Your task to perform on an android device: empty trash in google photos Image 0: 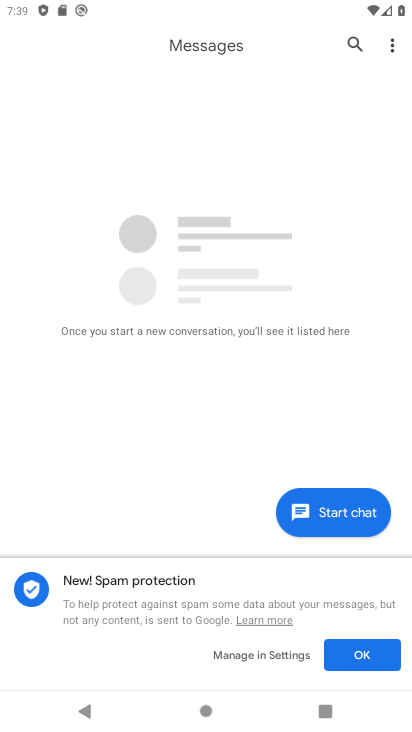
Step 0: press home button
Your task to perform on an android device: empty trash in google photos Image 1: 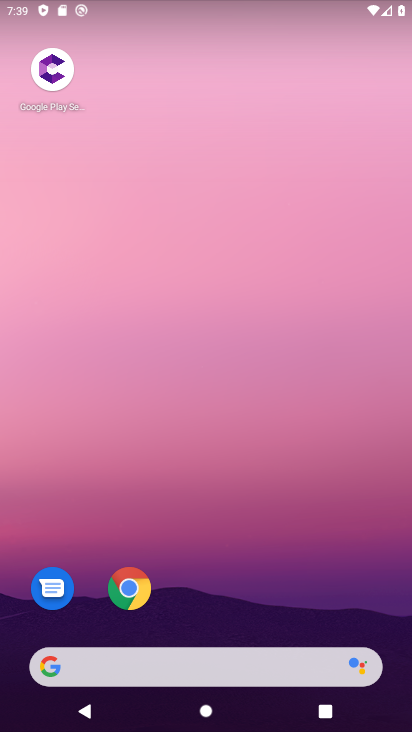
Step 1: drag from (41, 699) to (281, 59)
Your task to perform on an android device: empty trash in google photos Image 2: 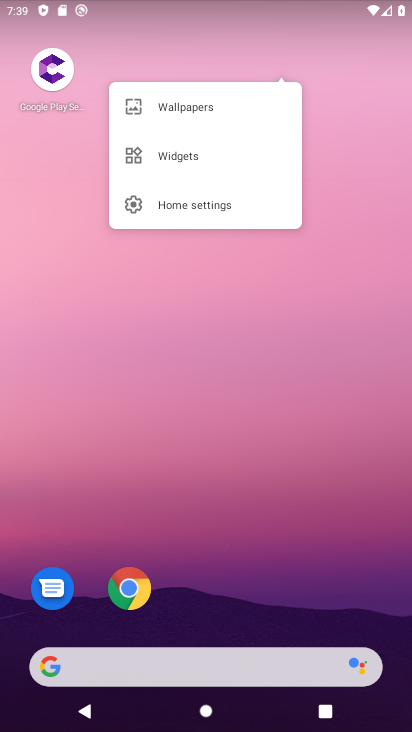
Step 2: drag from (53, 714) to (360, 132)
Your task to perform on an android device: empty trash in google photos Image 3: 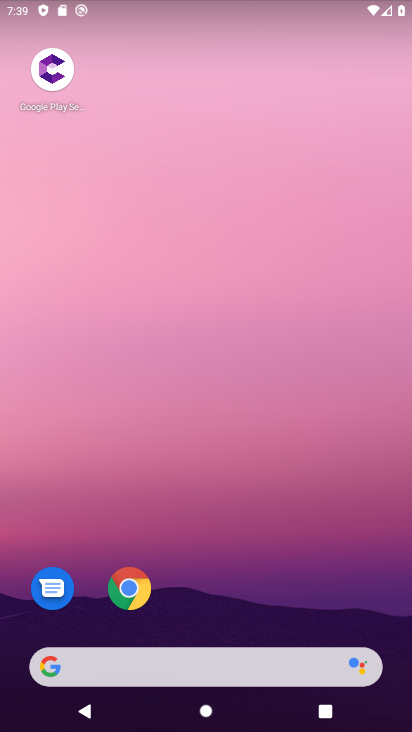
Step 3: drag from (56, 584) to (302, 16)
Your task to perform on an android device: empty trash in google photos Image 4: 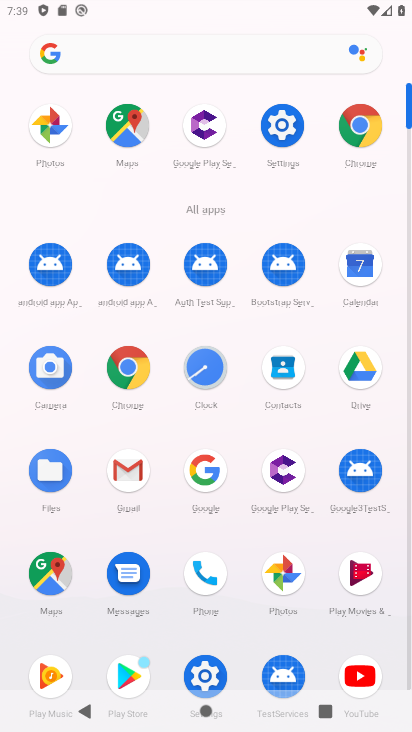
Step 4: click (282, 561)
Your task to perform on an android device: empty trash in google photos Image 5: 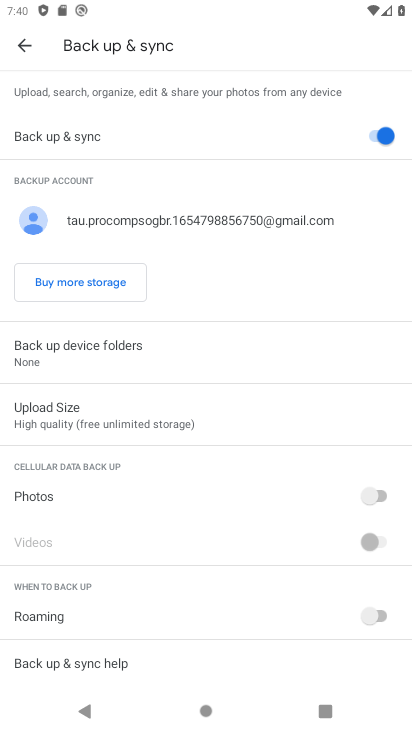
Step 5: click (16, 40)
Your task to perform on an android device: empty trash in google photos Image 6: 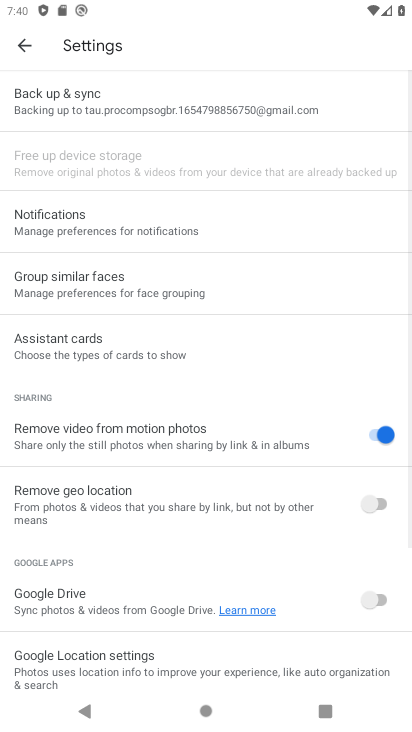
Step 6: click (16, 39)
Your task to perform on an android device: empty trash in google photos Image 7: 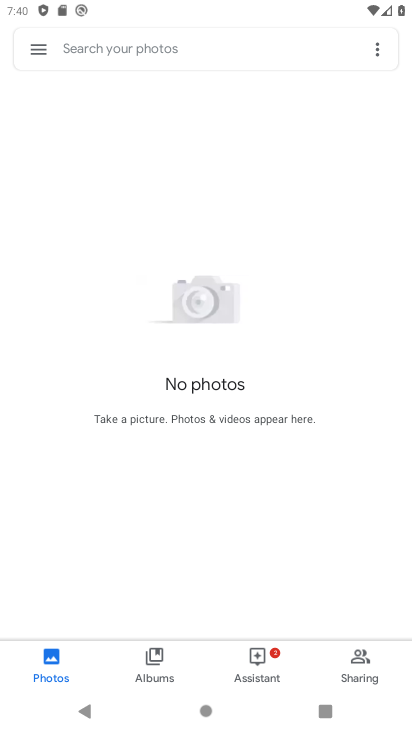
Step 7: click (35, 45)
Your task to perform on an android device: empty trash in google photos Image 8: 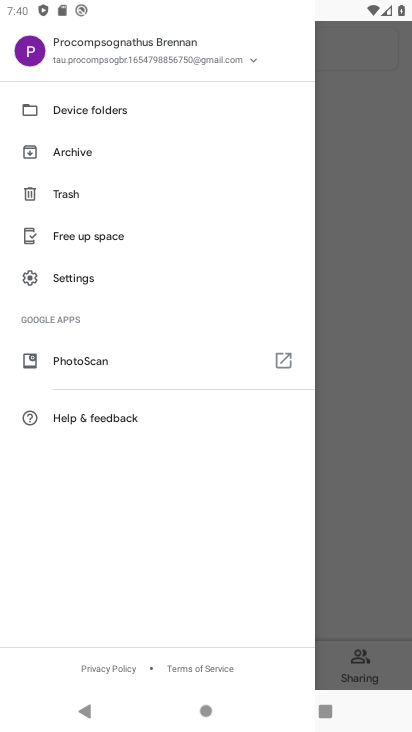
Step 8: click (69, 189)
Your task to perform on an android device: empty trash in google photos Image 9: 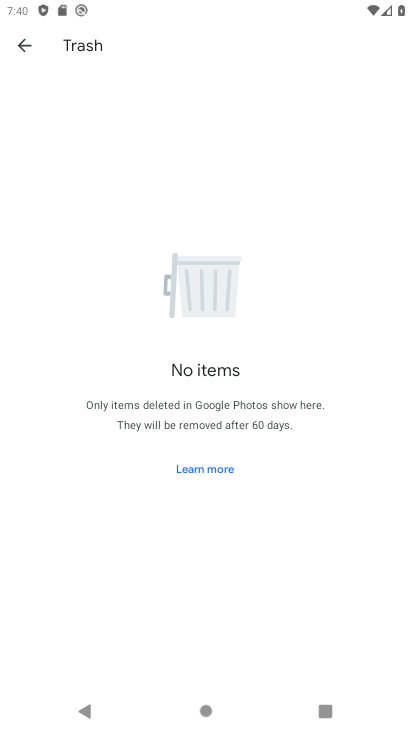
Step 9: task complete